Your task to perform on an android device: change the clock display to digital Image 0: 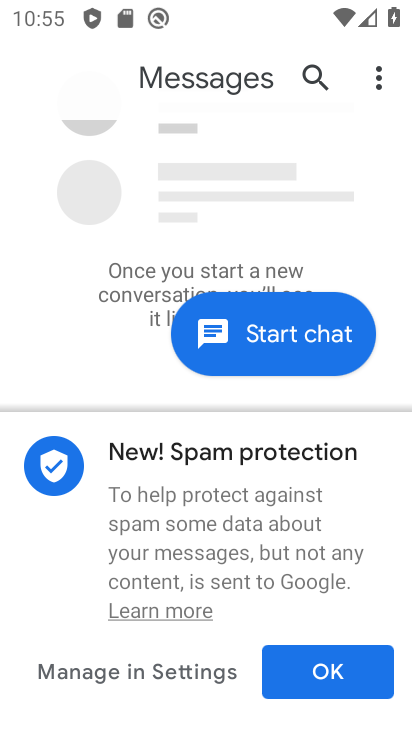
Step 0: press home button
Your task to perform on an android device: change the clock display to digital Image 1: 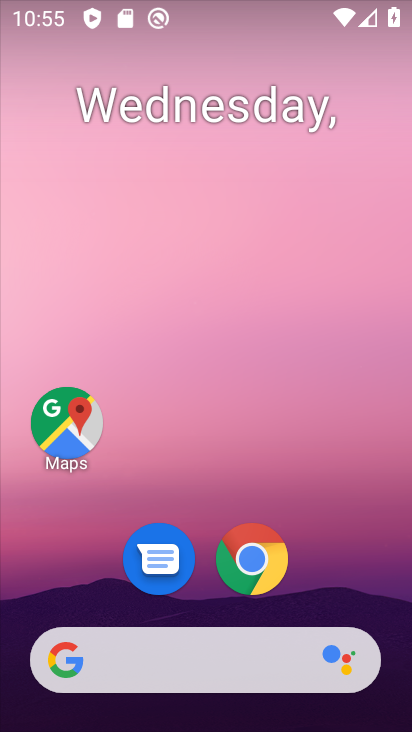
Step 1: drag from (206, 589) to (209, 277)
Your task to perform on an android device: change the clock display to digital Image 2: 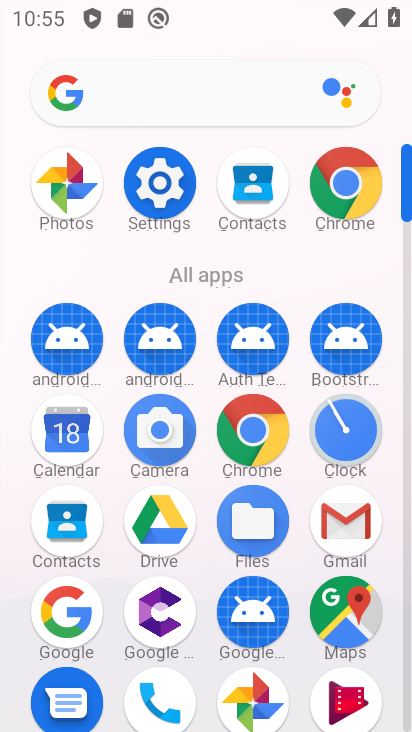
Step 2: drag from (213, 586) to (213, 313)
Your task to perform on an android device: change the clock display to digital Image 3: 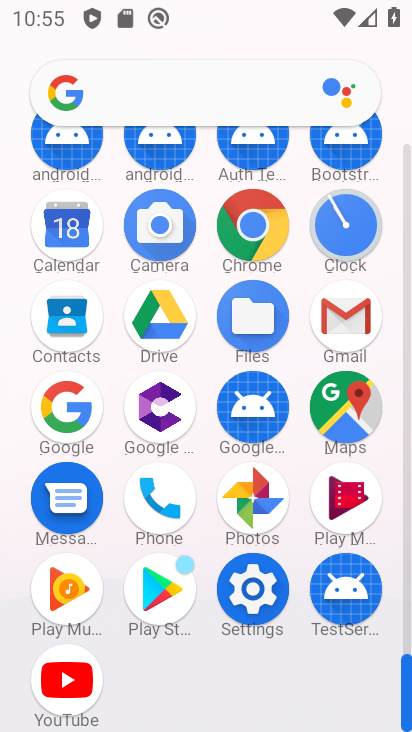
Step 3: click (359, 227)
Your task to perform on an android device: change the clock display to digital Image 4: 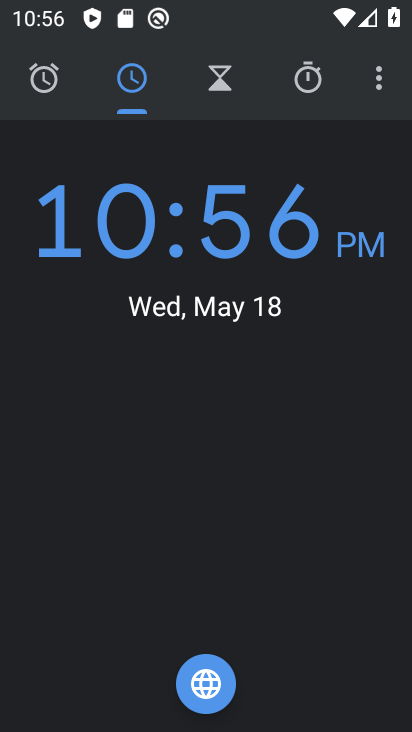
Step 4: click (378, 72)
Your task to perform on an android device: change the clock display to digital Image 5: 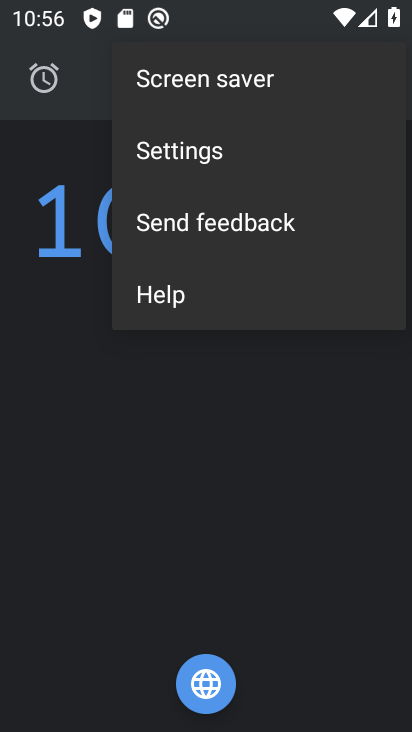
Step 5: click (229, 159)
Your task to perform on an android device: change the clock display to digital Image 6: 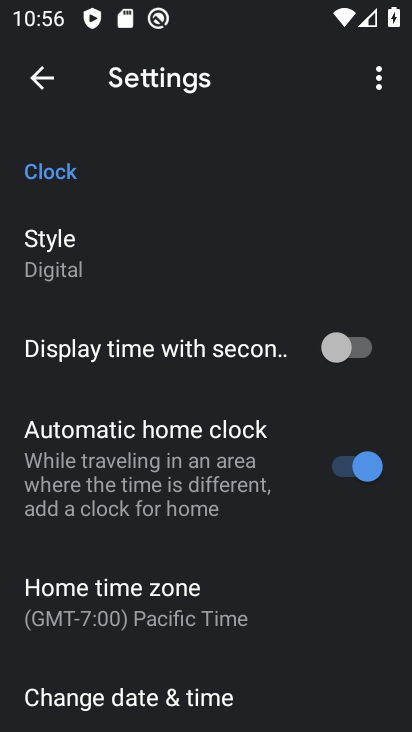
Step 6: click (82, 268)
Your task to perform on an android device: change the clock display to digital Image 7: 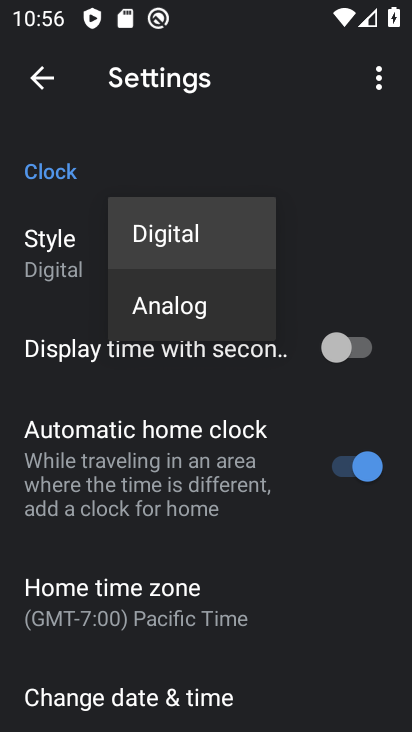
Step 7: click (176, 313)
Your task to perform on an android device: change the clock display to digital Image 8: 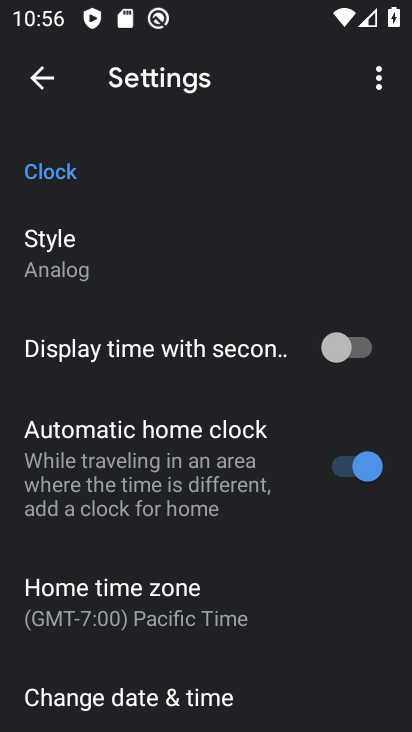
Step 8: task complete